Your task to perform on an android device: What is the news today? Image 0: 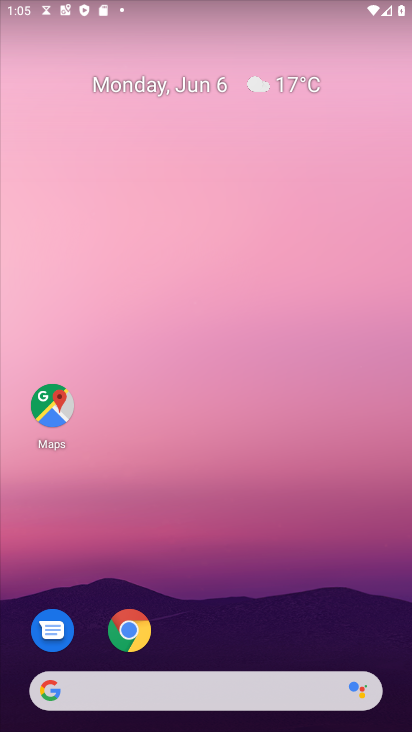
Step 0: click (198, 44)
Your task to perform on an android device: What is the news today? Image 1: 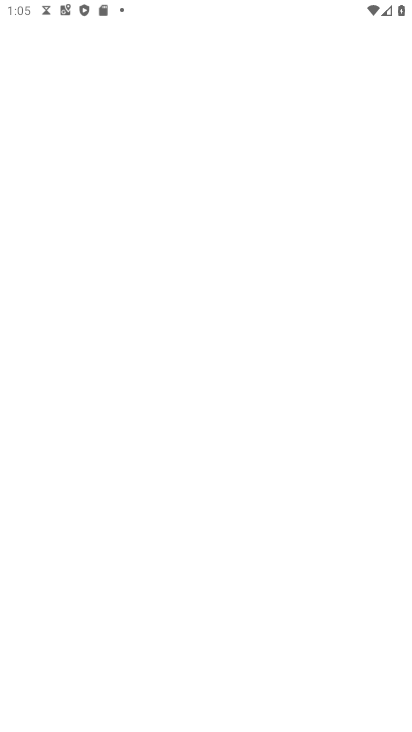
Step 1: drag from (1, 240) to (391, 401)
Your task to perform on an android device: What is the news today? Image 2: 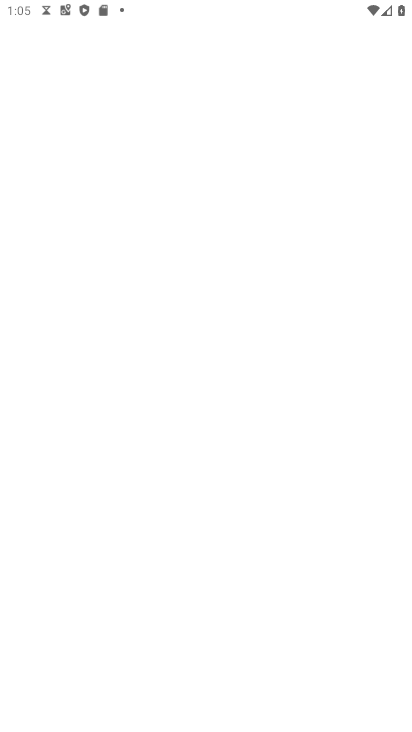
Step 2: drag from (0, 237) to (318, 448)
Your task to perform on an android device: What is the news today? Image 3: 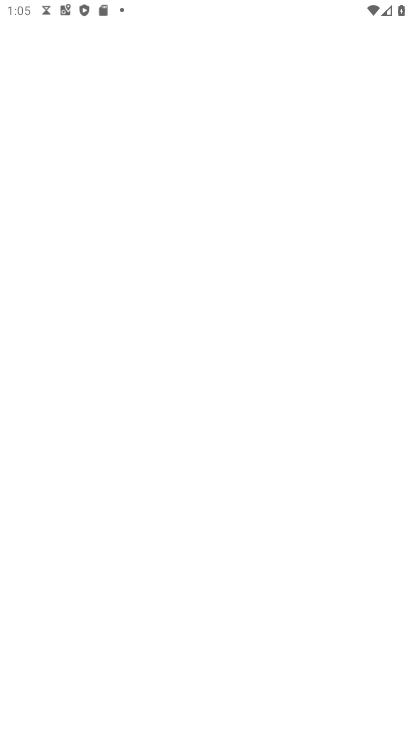
Step 3: drag from (175, 239) to (387, 492)
Your task to perform on an android device: What is the news today? Image 4: 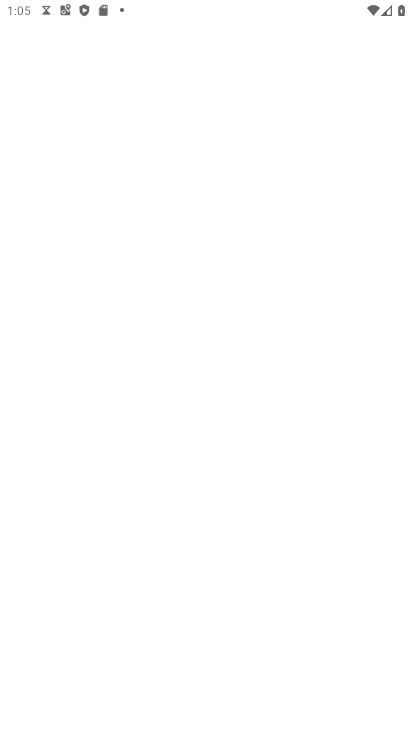
Step 4: drag from (34, 232) to (388, 500)
Your task to perform on an android device: What is the news today? Image 5: 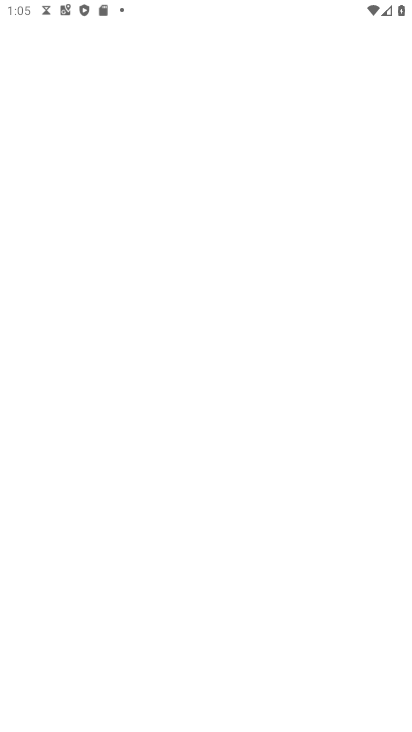
Step 5: drag from (59, 184) to (399, 391)
Your task to perform on an android device: What is the news today? Image 6: 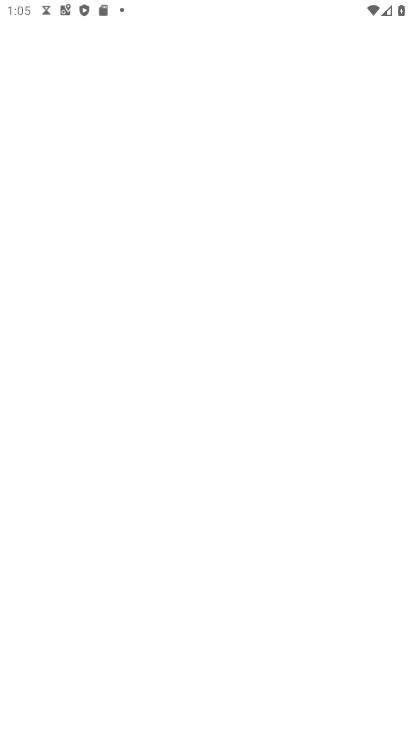
Step 6: drag from (355, 287) to (410, 452)
Your task to perform on an android device: What is the news today? Image 7: 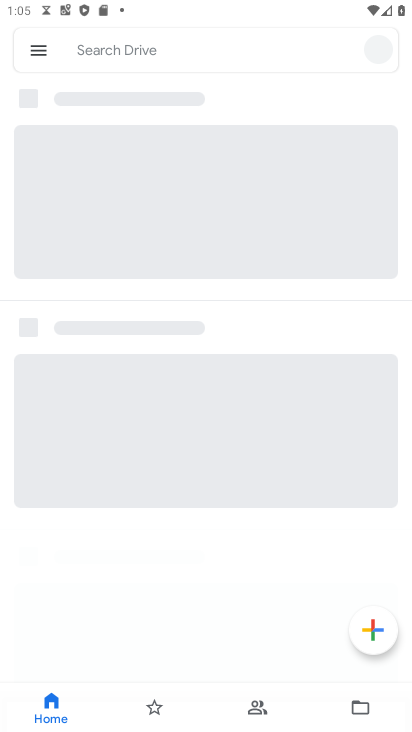
Step 7: drag from (38, 259) to (352, 540)
Your task to perform on an android device: What is the news today? Image 8: 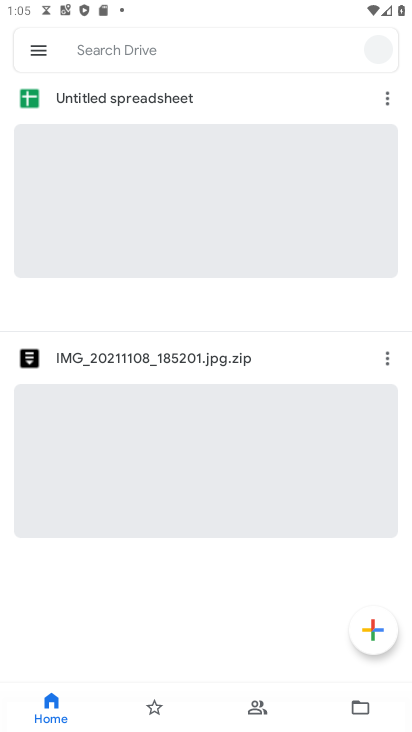
Step 8: click (18, 211)
Your task to perform on an android device: What is the news today? Image 9: 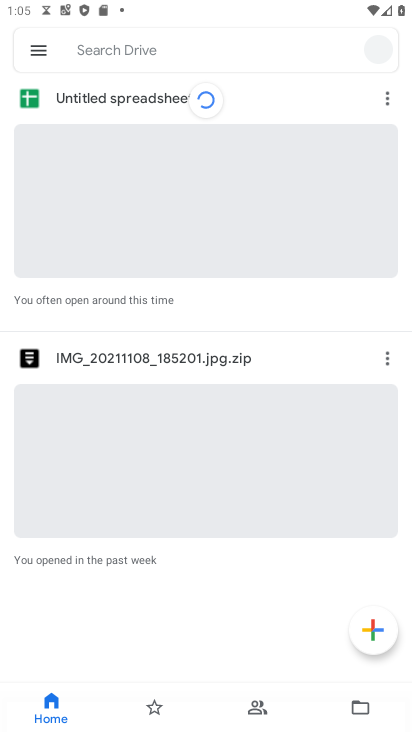
Step 9: drag from (194, 364) to (296, 498)
Your task to perform on an android device: What is the news today? Image 10: 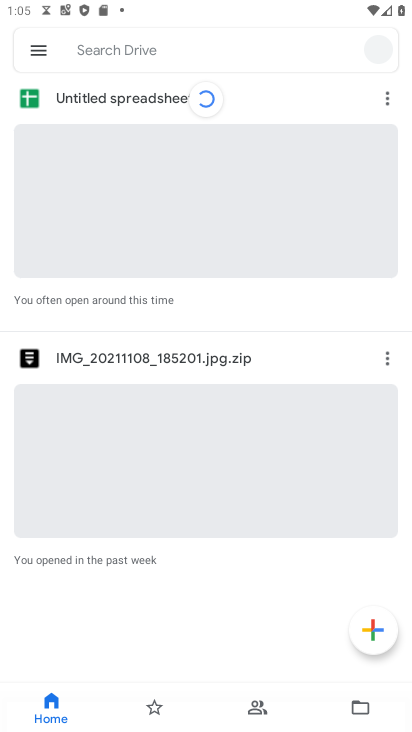
Step 10: drag from (37, 205) to (401, 401)
Your task to perform on an android device: What is the news today? Image 11: 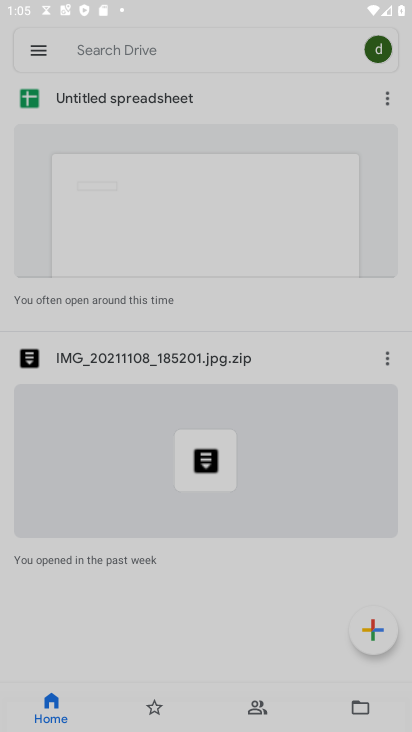
Step 11: press back button
Your task to perform on an android device: What is the news today? Image 12: 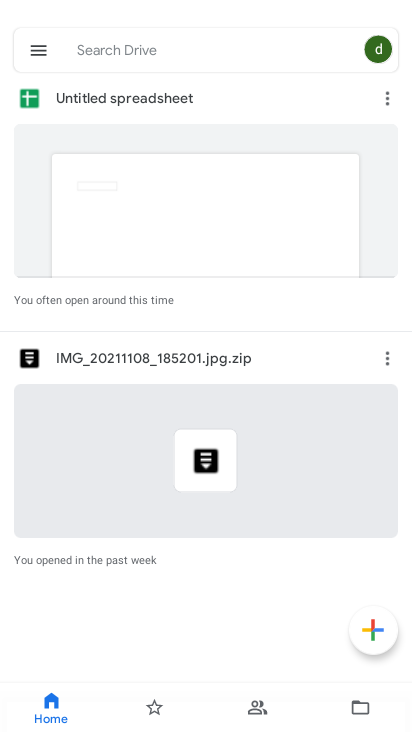
Step 12: click (394, 329)
Your task to perform on an android device: What is the news today? Image 13: 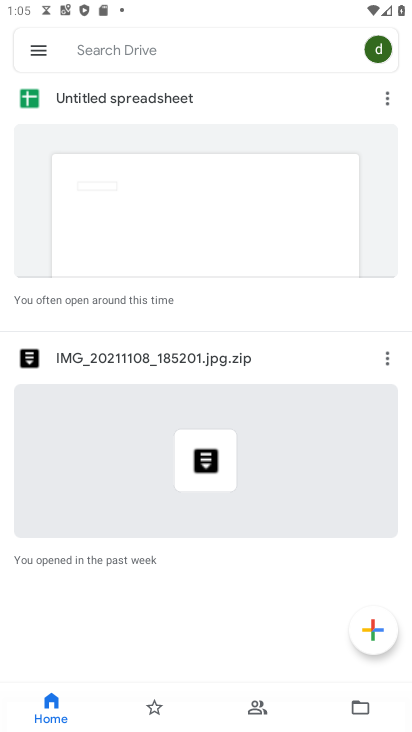
Step 13: task complete